Your task to perform on an android device: turn on location history Image 0: 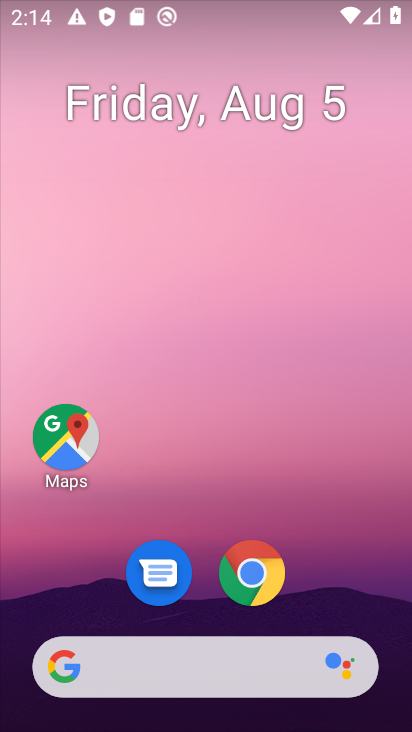
Step 0: drag from (382, 612) to (250, 87)
Your task to perform on an android device: turn on location history Image 1: 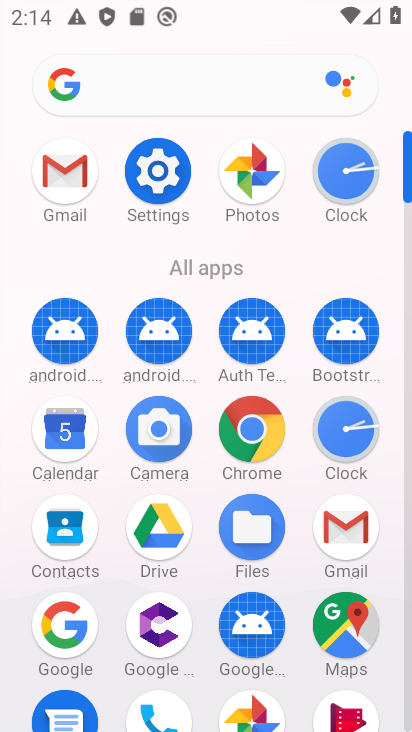
Step 1: click (366, 640)
Your task to perform on an android device: turn on location history Image 2: 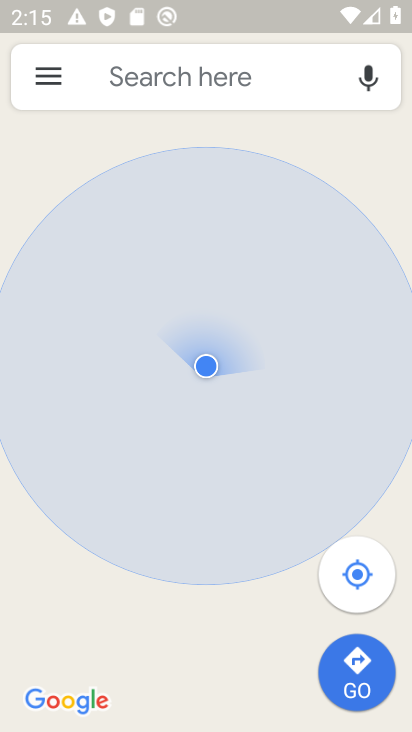
Step 2: click (56, 86)
Your task to perform on an android device: turn on location history Image 3: 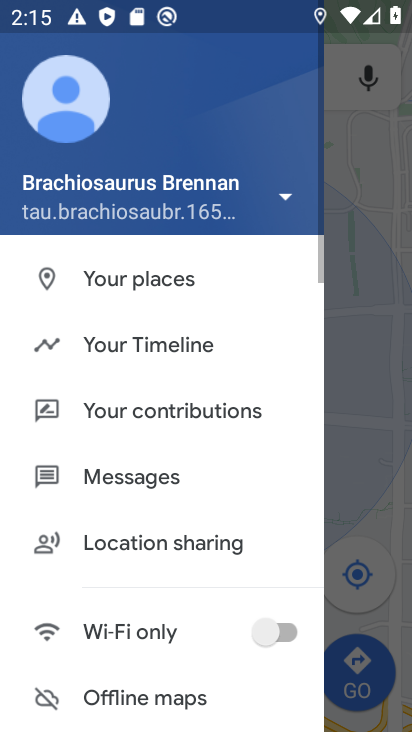
Step 3: click (187, 349)
Your task to perform on an android device: turn on location history Image 4: 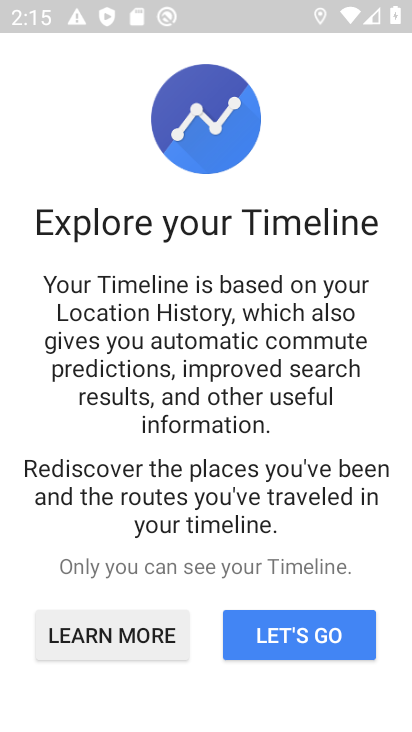
Step 4: click (329, 660)
Your task to perform on an android device: turn on location history Image 5: 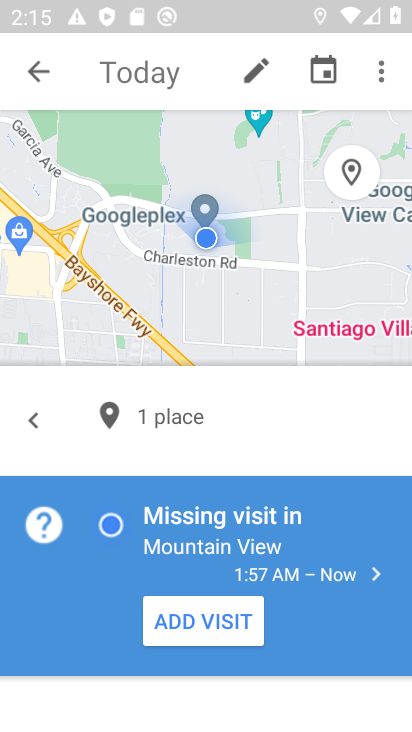
Step 5: click (386, 81)
Your task to perform on an android device: turn on location history Image 6: 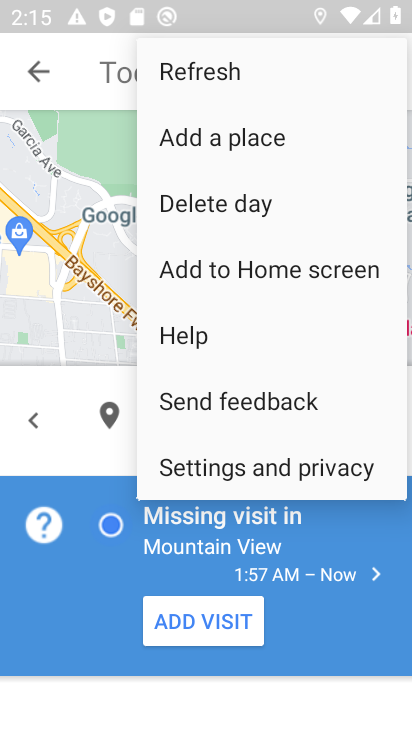
Step 6: click (328, 476)
Your task to perform on an android device: turn on location history Image 7: 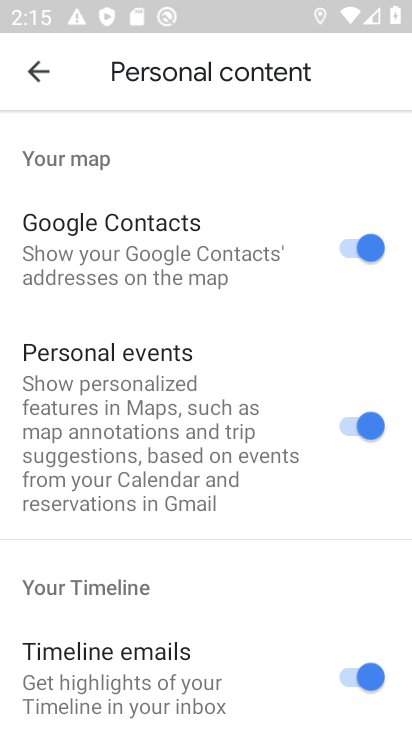
Step 7: drag from (247, 678) to (179, 122)
Your task to perform on an android device: turn on location history Image 8: 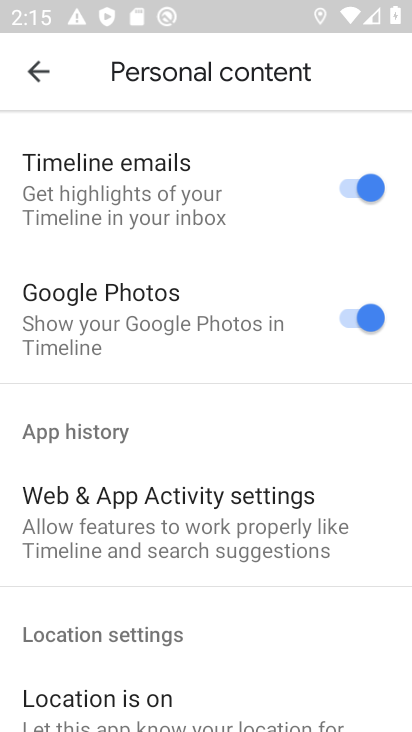
Step 8: drag from (248, 678) to (191, 320)
Your task to perform on an android device: turn on location history Image 9: 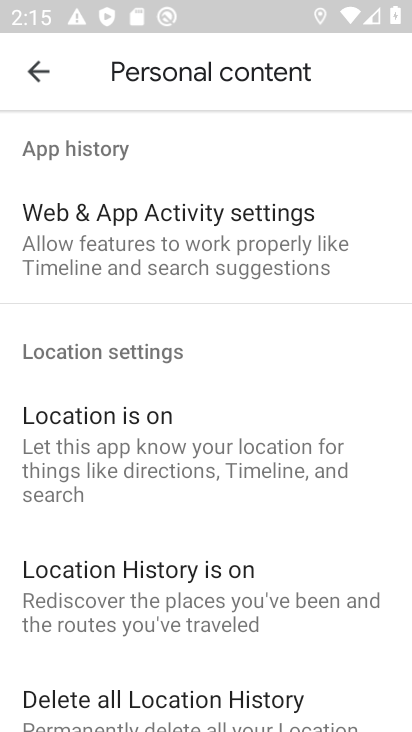
Step 9: click (268, 590)
Your task to perform on an android device: turn on location history Image 10: 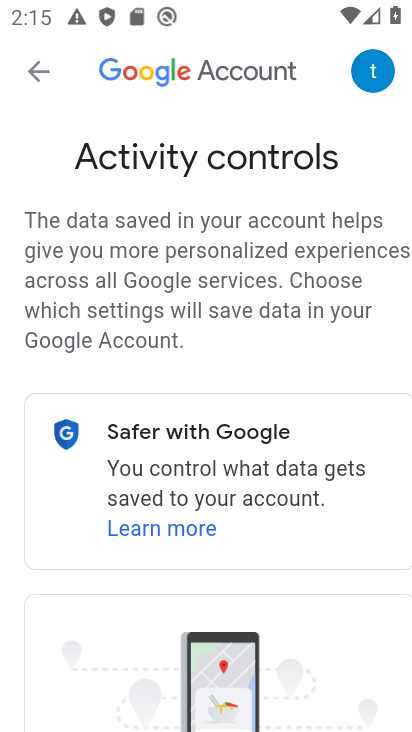
Step 10: task complete